Your task to perform on an android device: turn on wifi Image 0: 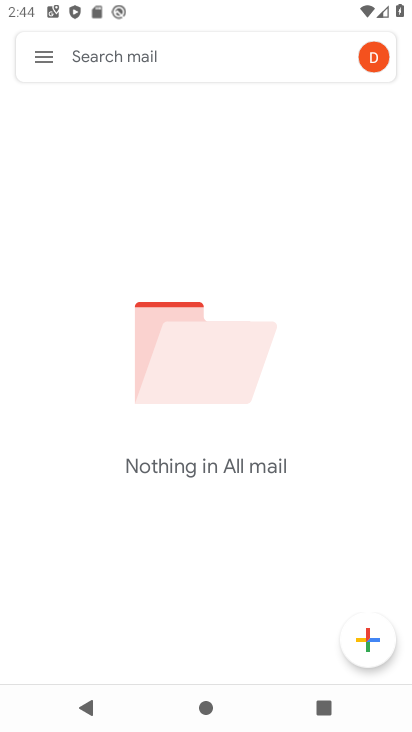
Step 0: press home button
Your task to perform on an android device: turn on wifi Image 1: 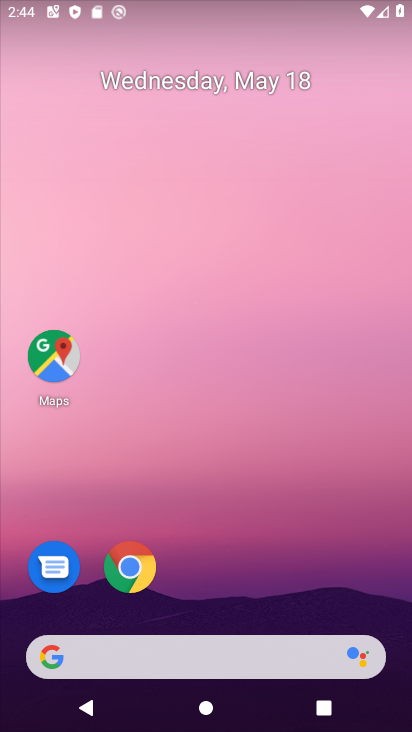
Step 1: drag from (230, 598) to (250, 185)
Your task to perform on an android device: turn on wifi Image 2: 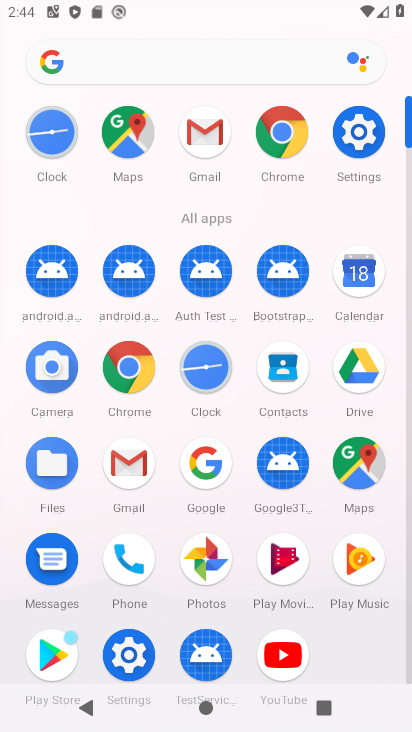
Step 2: click (359, 149)
Your task to perform on an android device: turn on wifi Image 3: 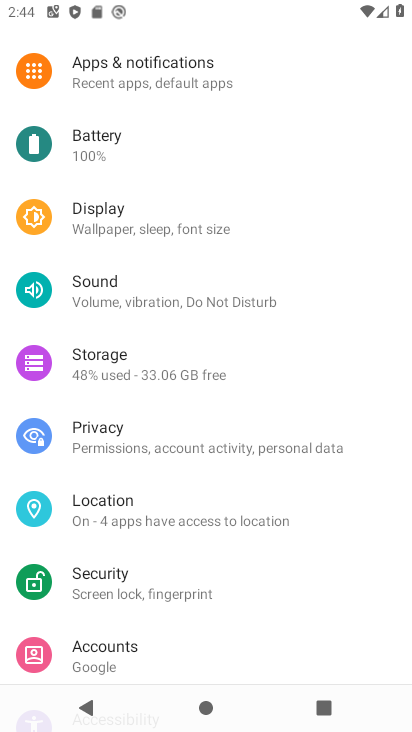
Step 3: drag from (270, 157) to (231, 505)
Your task to perform on an android device: turn on wifi Image 4: 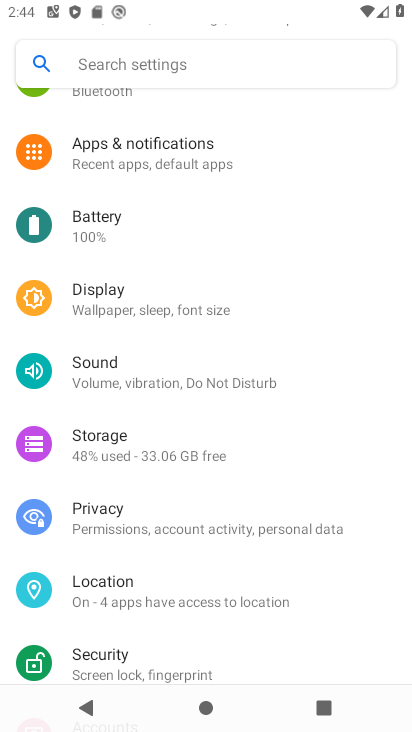
Step 4: drag from (240, 312) to (184, 616)
Your task to perform on an android device: turn on wifi Image 5: 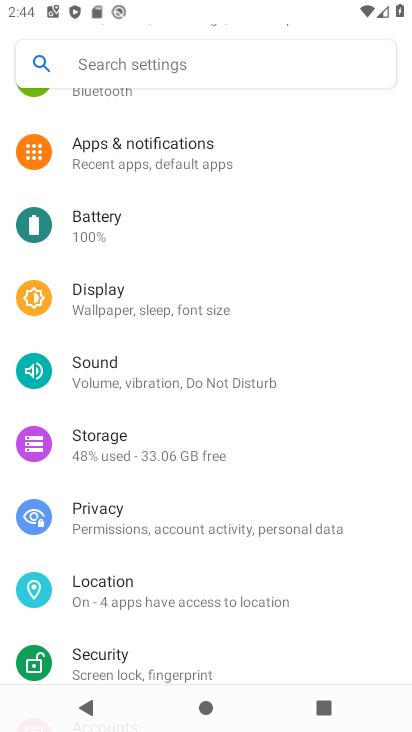
Step 5: drag from (183, 237) to (144, 503)
Your task to perform on an android device: turn on wifi Image 6: 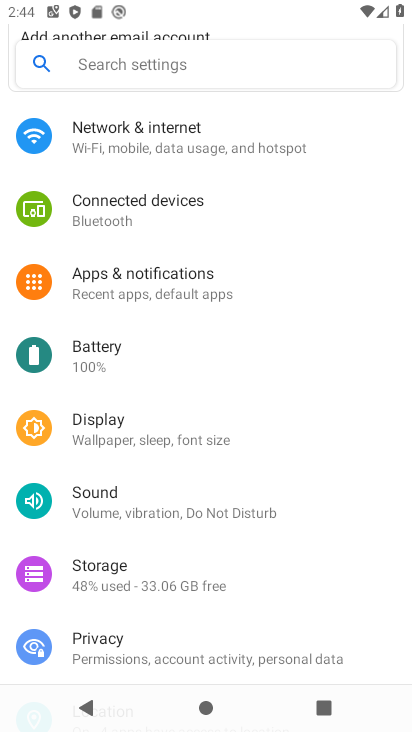
Step 6: click (110, 152)
Your task to perform on an android device: turn on wifi Image 7: 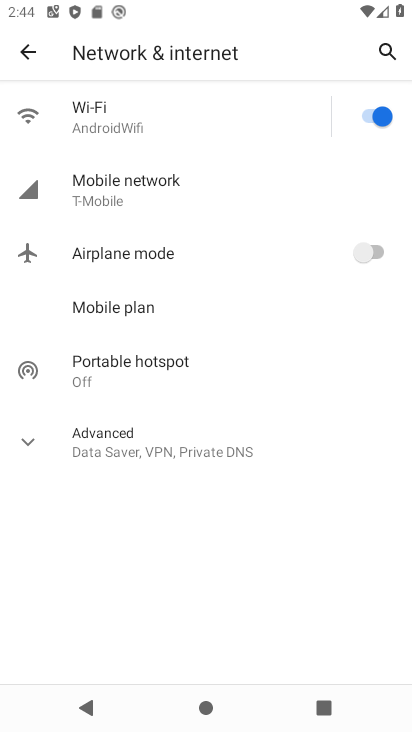
Step 7: task complete